Your task to perform on an android device: See recent photos Image 0: 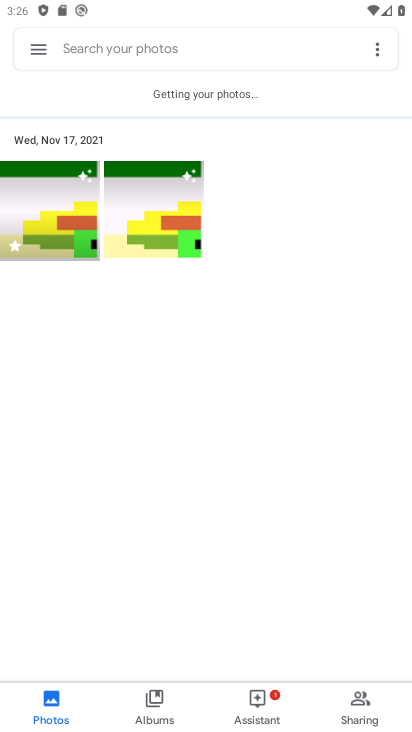
Step 0: task complete